Your task to perform on an android device: clear history in the chrome app Image 0: 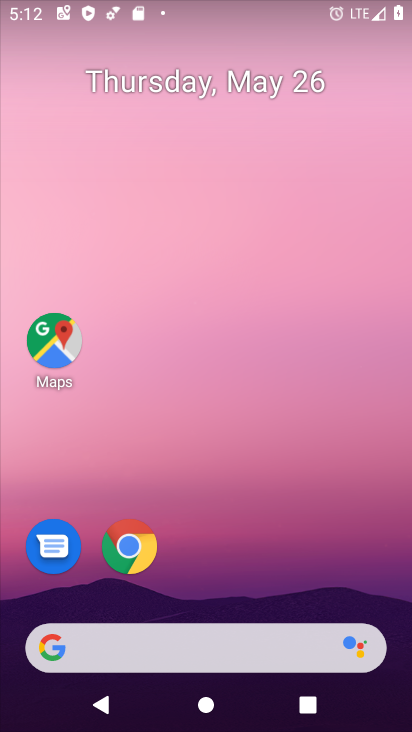
Step 0: click (143, 555)
Your task to perform on an android device: clear history in the chrome app Image 1: 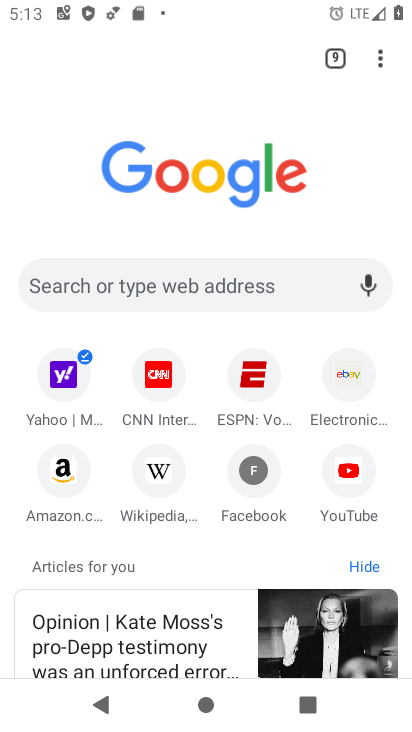
Step 1: drag from (374, 62) to (183, 323)
Your task to perform on an android device: clear history in the chrome app Image 2: 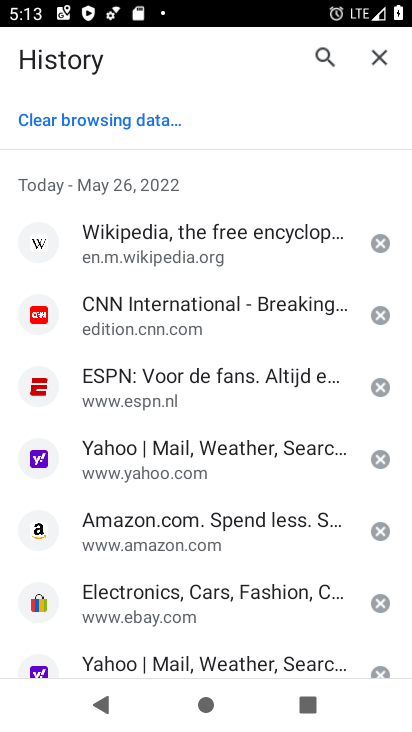
Step 2: click (77, 111)
Your task to perform on an android device: clear history in the chrome app Image 3: 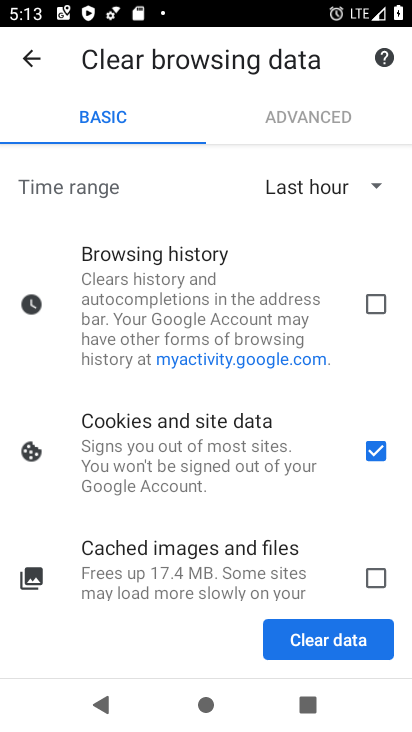
Step 3: click (357, 308)
Your task to perform on an android device: clear history in the chrome app Image 4: 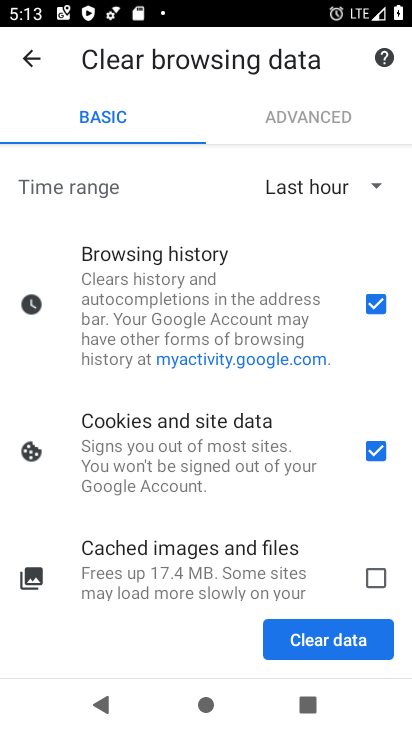
Step 4: click (364, 577)
Your task to perform on an android device: clear history in the chrome app Image 5: 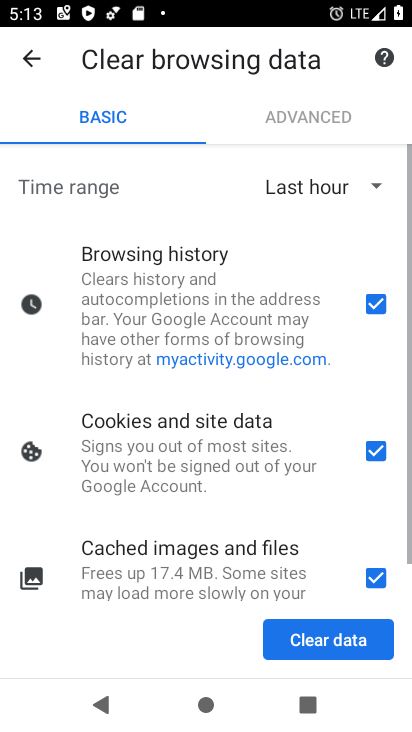
Step 5: click (309, 643)
Your task to perform on an android device: clear history in the chrome app Image 6: 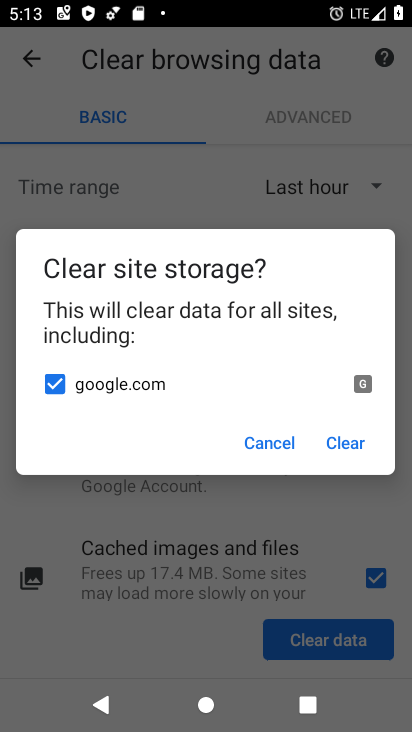
Step 6: click (349, 436)
Your task to perform on an android device: clear history in the chrome app Image 7: 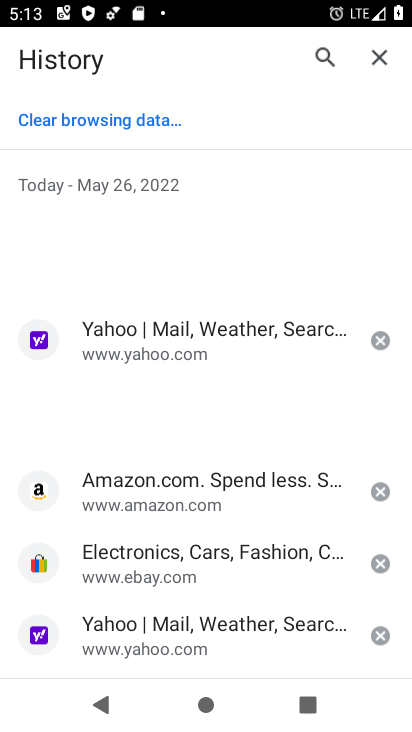
Step 7: task complete